Your task to perform on an android device: Open calendar and show me the second week of next month Image 0: 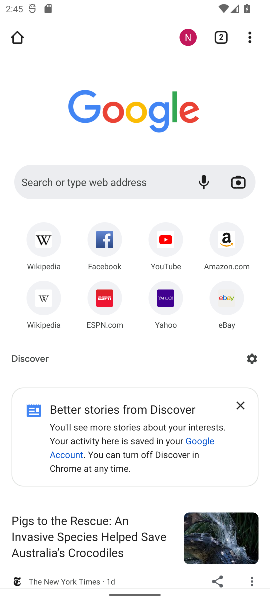
Step 0: task complete